Your task to perform on an android device: change timer sound Image 0: 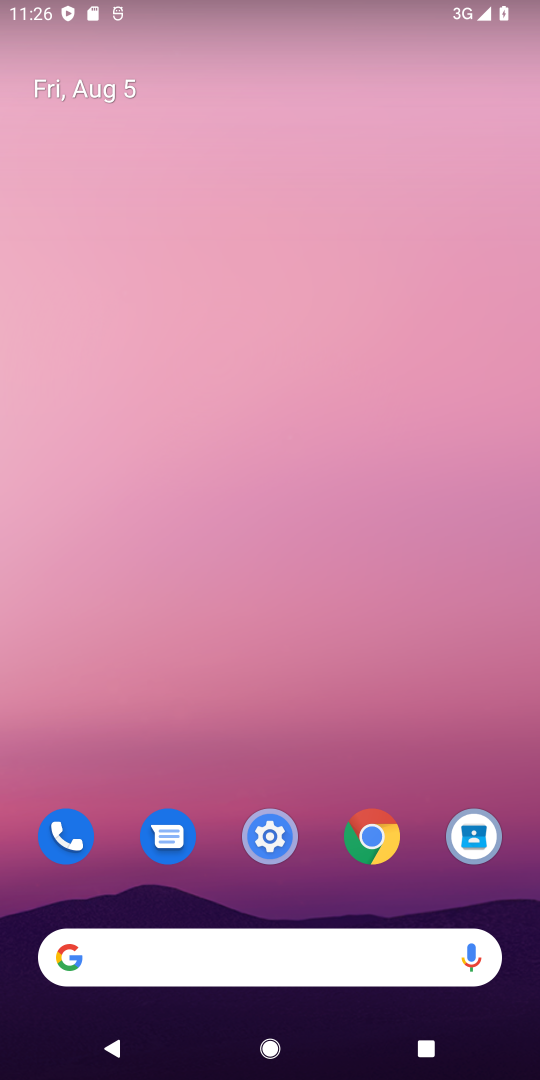
Step 0: drag from (326, 880) to (330, 217)
Your task to perform on an android device: change timer sound Image 1: 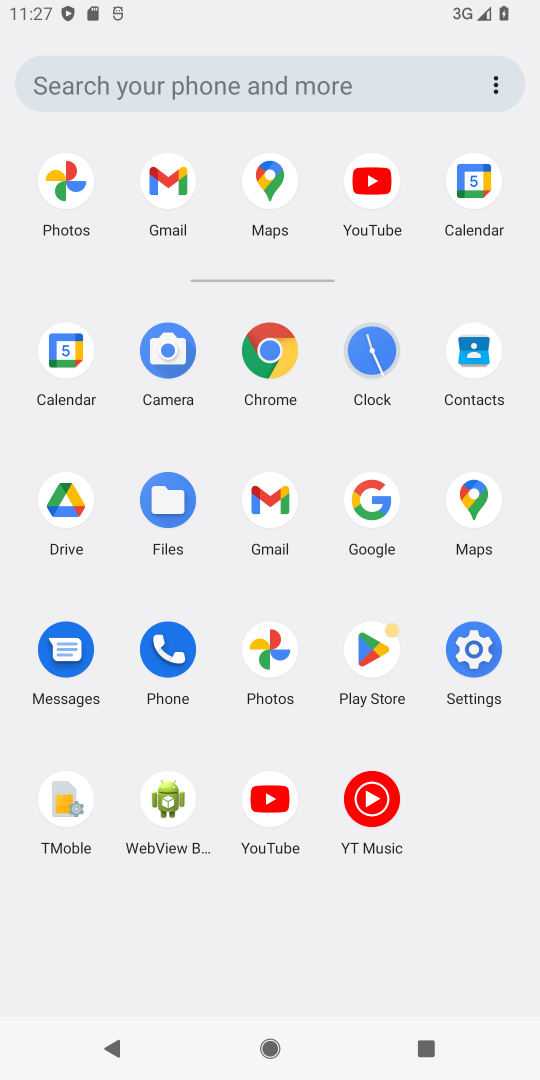
Step 1: click (373, 341)
Your task to perform on an android device: change timer sound Image 2: 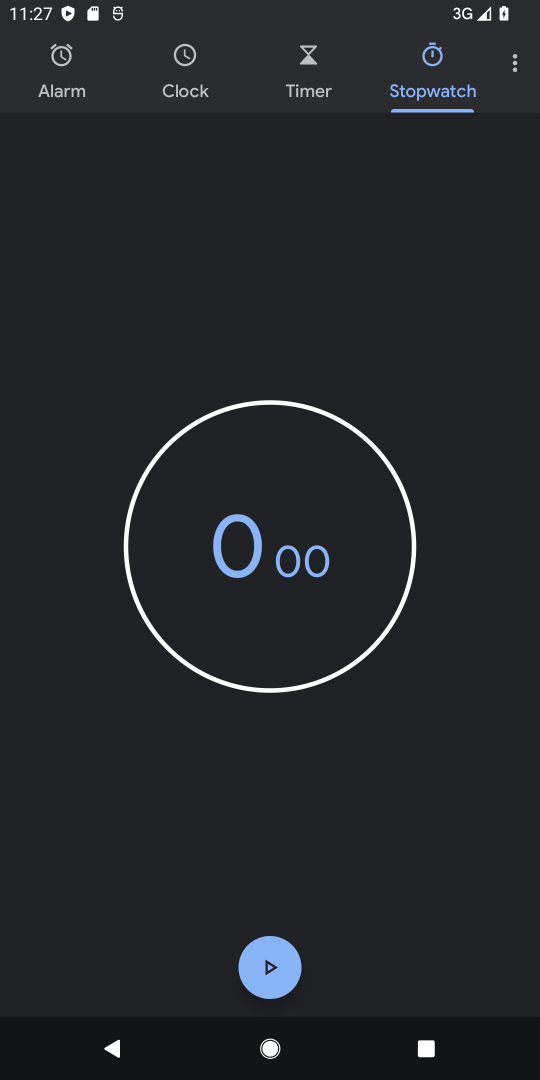
Step 2: click (528, 40)
Your task to perform on an android device: change timer sound Image 3: 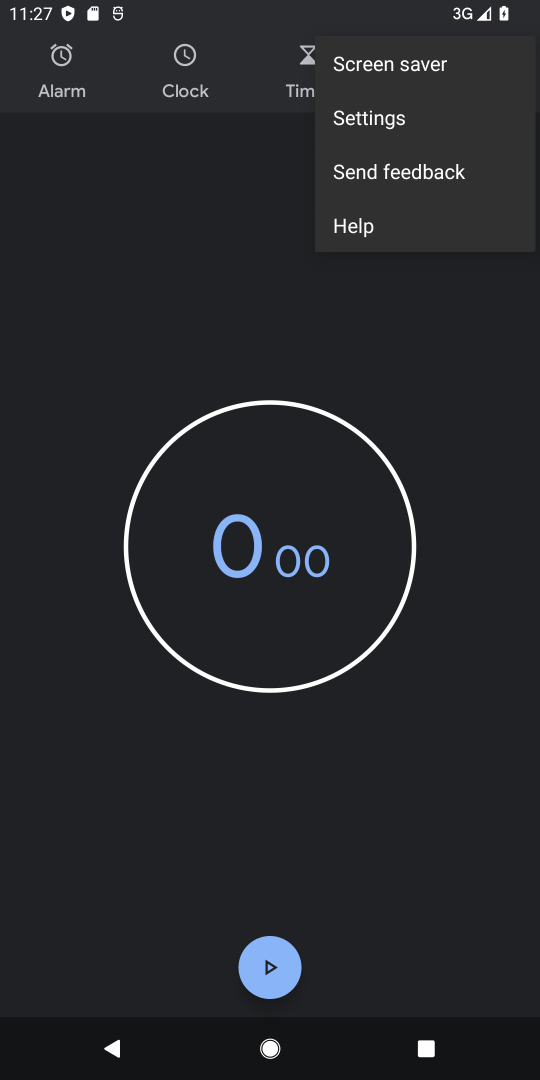
Step 3: click (398, 131)
Your task to perform on an android device: change timer sound Image 4: 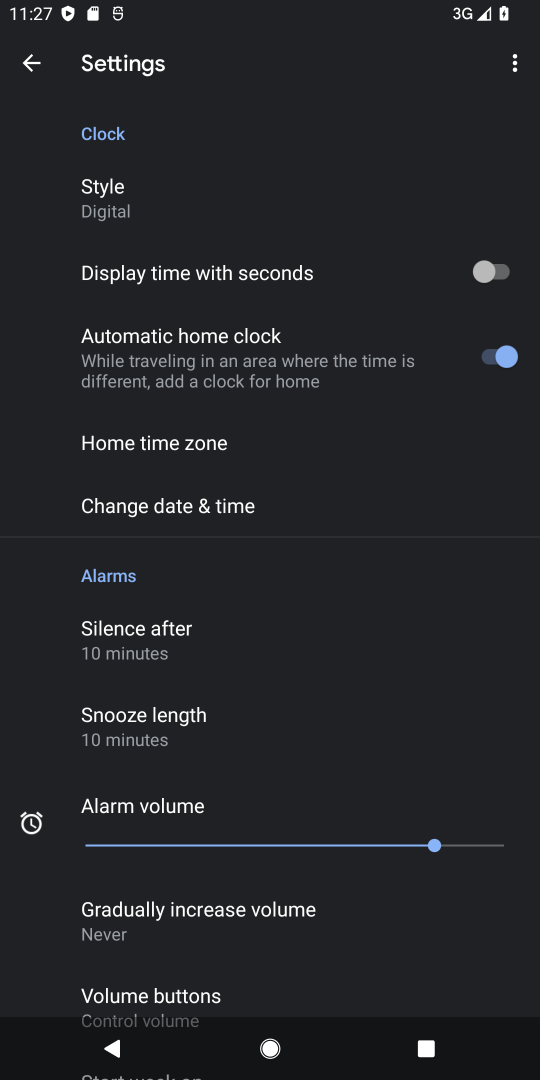
Step 4: drag from (386, 945) to (391, 378)
Your task to perform on an android device: change timer sound Image 5: 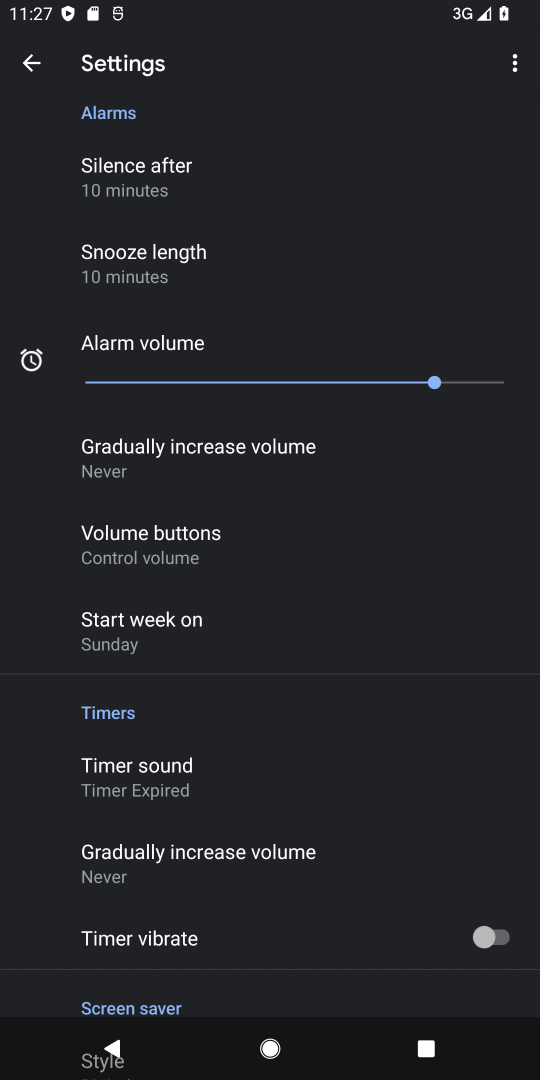
Step 5: click (158, 773)
Your task to perform on an android device: change timer sound Image 6: 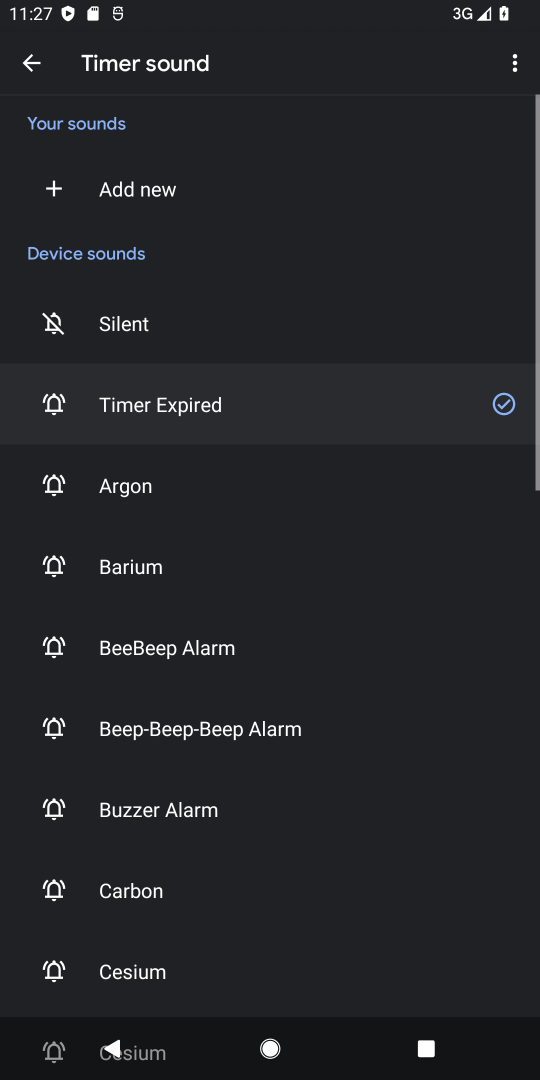
Step 6: click (201, 485)
Your task to perform on an android device: change timer sound Image 7: 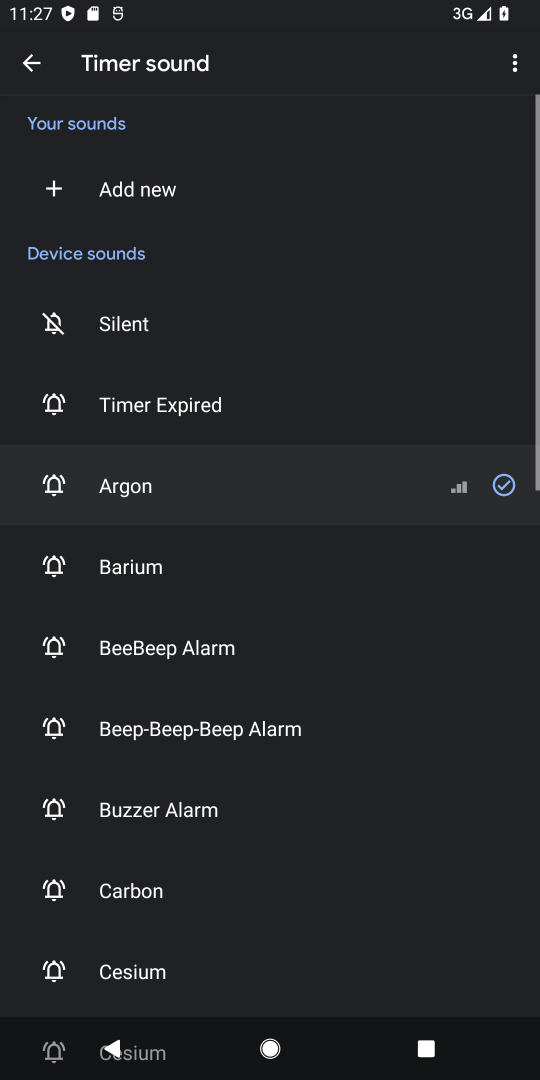
Step 7: task complete